Your task to perform on an android device: What is the news today? Image 0: 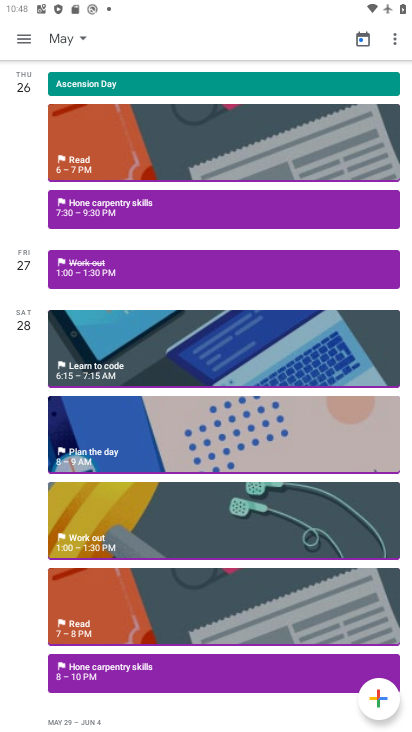
Step 0: press home button
Your task to perform on an android device: What is the news today? Image 1: 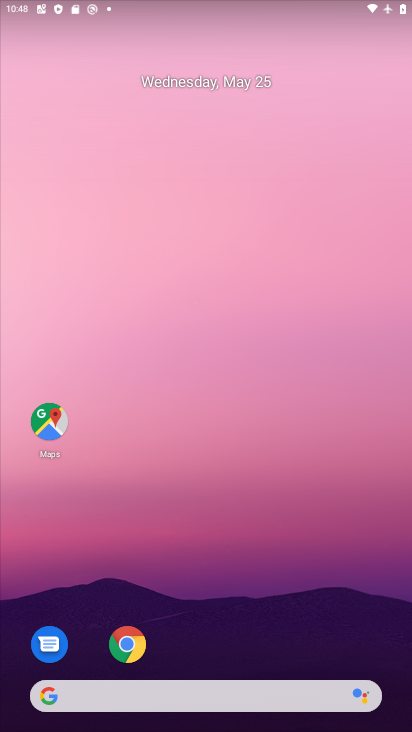
Step 1: drag from (246, 631) to (264, 99)
Your task to perform on an android device: What is the news today? Image 2: 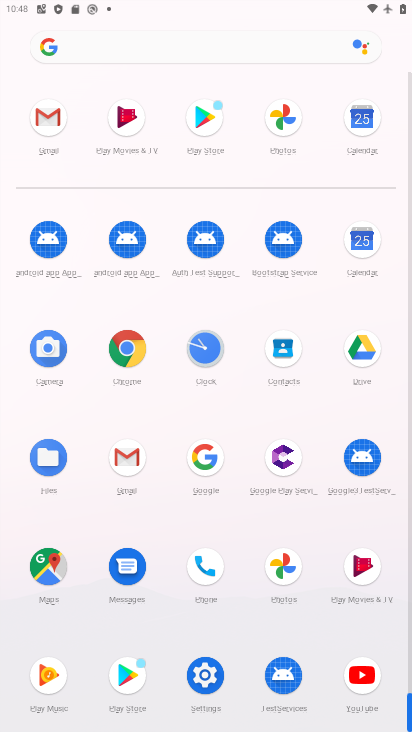
Step 2: click (214, 448)
Your task to perform on an android device: What is the news today? Image 3: 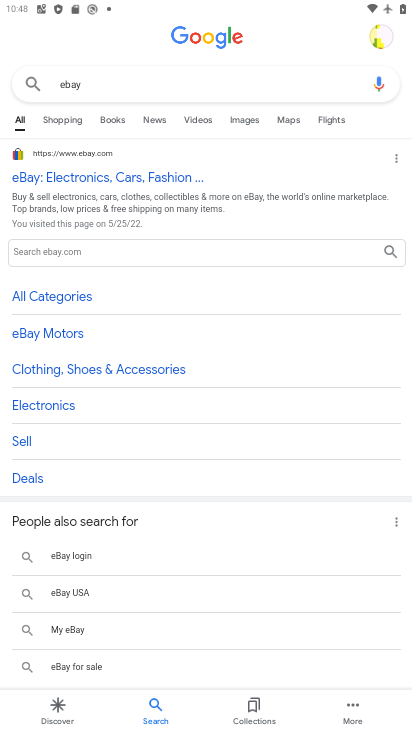
Step 3: click (159, 84)
Your task to perform on an android device: What is the news today? Image 4: 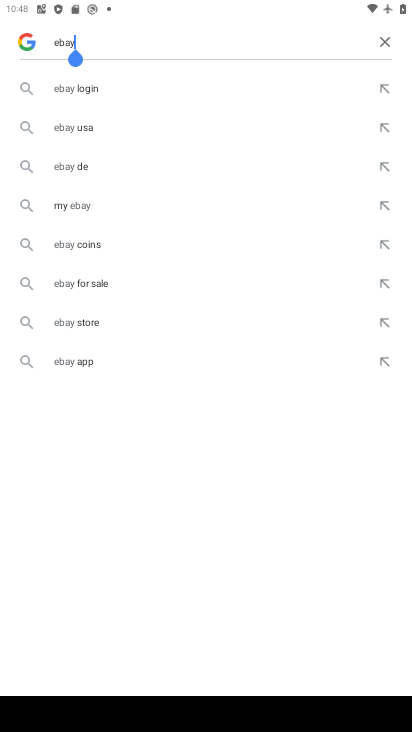
Step 4: click (382, 46)
Your task to perform on an android device: What is the news today? Image 5: 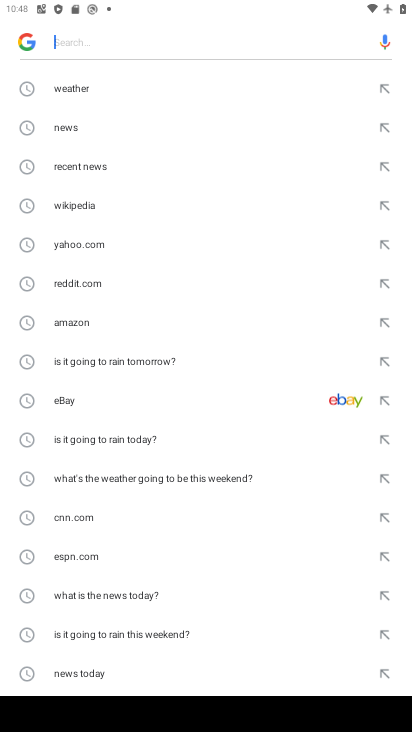
Step 5: click (107, 128)
Your task to perform on an android device: What is the news today? Image 6: 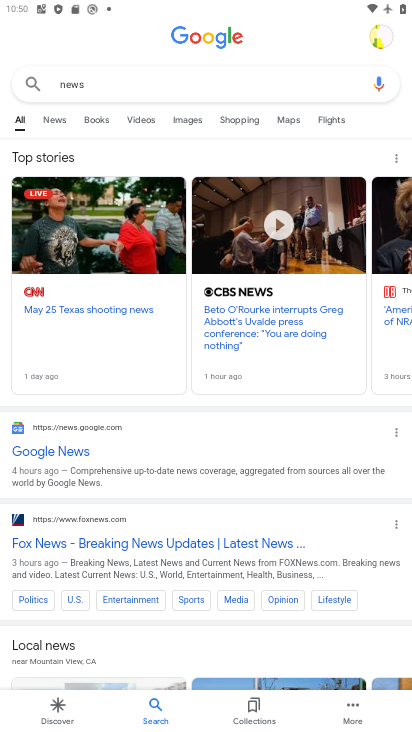
Step 6: task complete